Your task to perform on an android device: Open Reddit.com Image 0: 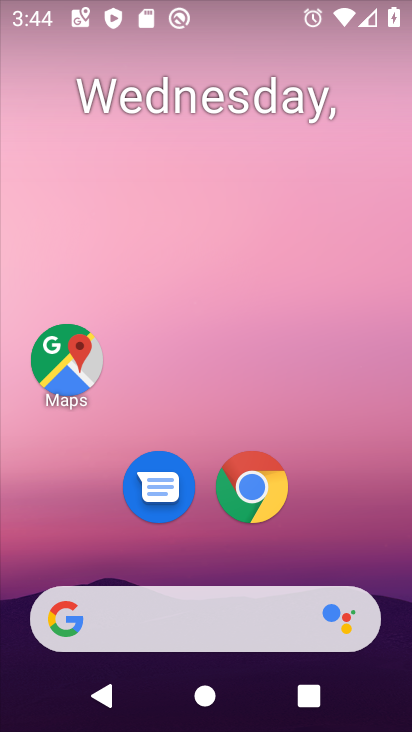
Step 0: drag from (362, 549) to (349, 258)
Your task to perform on an android device: Open Reddit.com Image 1: 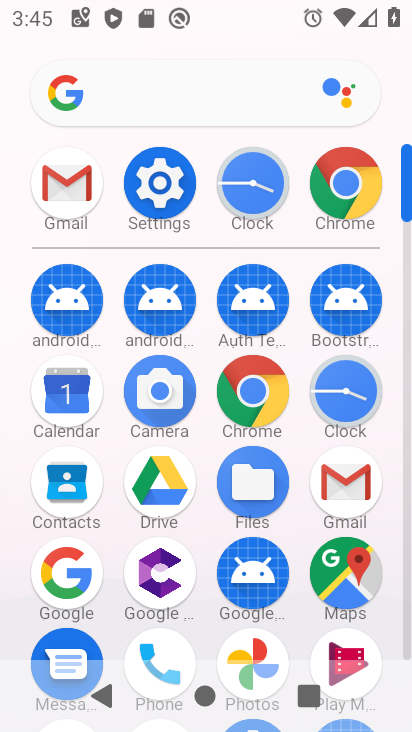
Step 1: click (269, 398)
Your task to perform on an android device: Open Reddit.com Image 2: 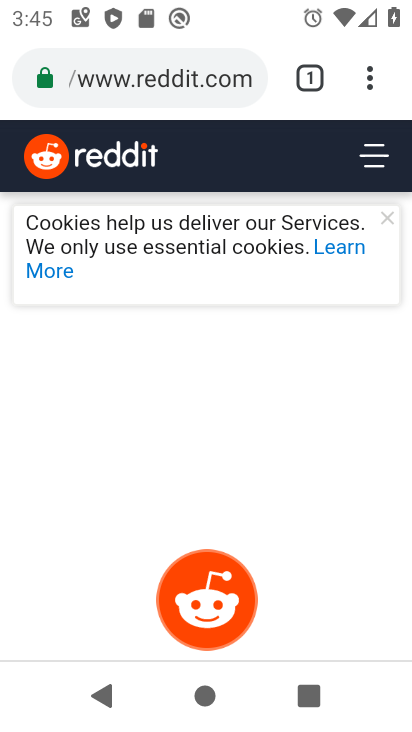
Step 2: task complete